Your task to perform on an android device: turn on location history Image 0: 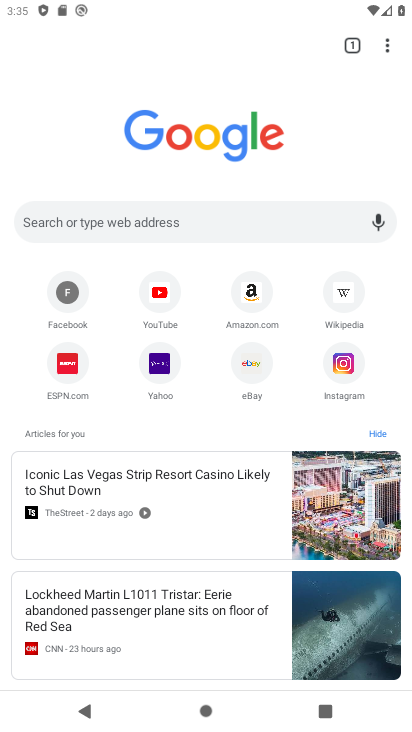
Step 0: press home button
Your task to perform on an android device: turn on location history Image 1: 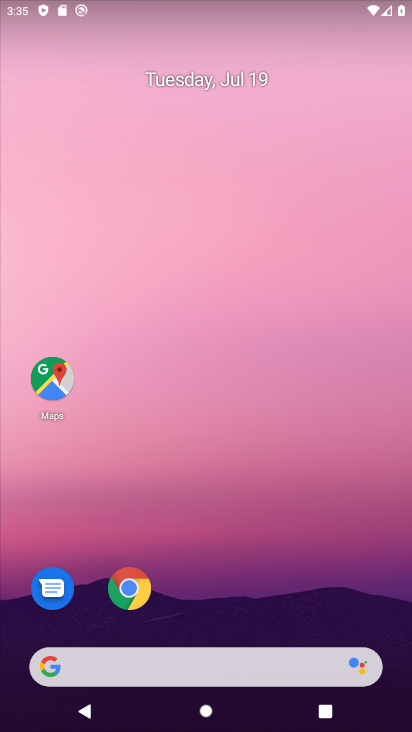
Step 1: click (62, 385)
Your task to perform on an android device: turn on location history Image 2: 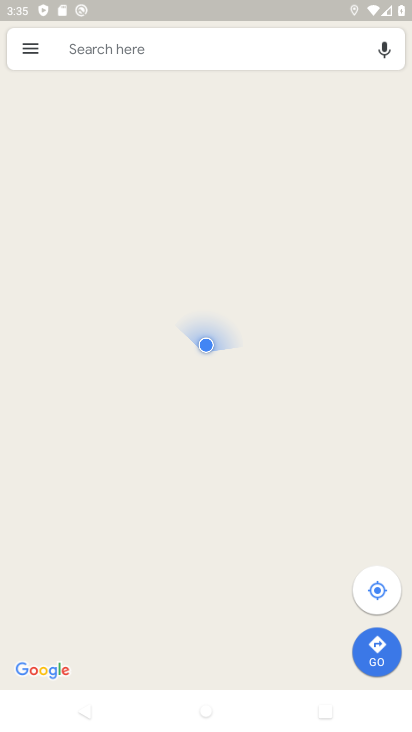
Step 2: click (32, 51)
Your task to perform on an android device: turn on location history Image 3: 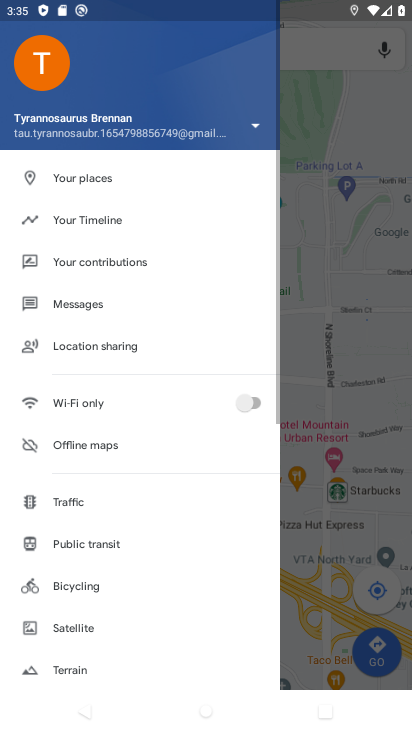
Step 3: click (108, 221)
Your task to perform on an android device: turn on location history Image 4: 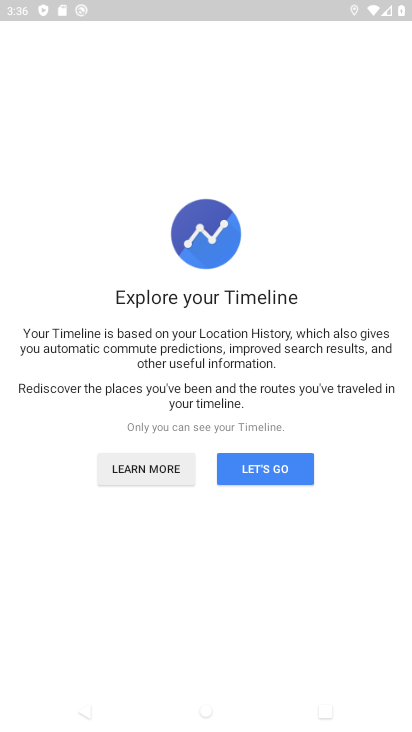
Step 4: click (254, 467)
Your task to perform on an android device: turn on location history Image 5: 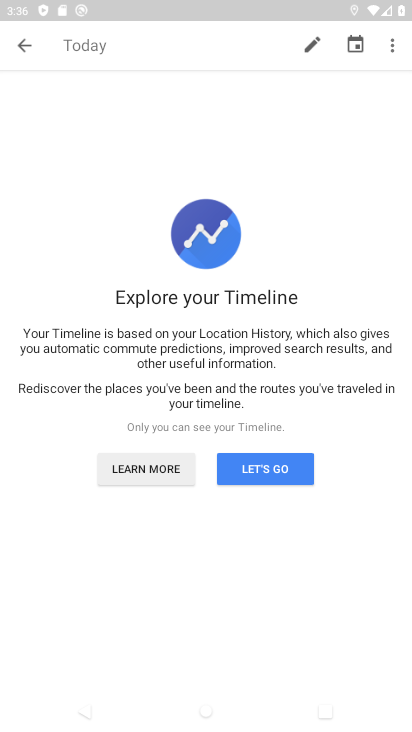
Step 5: click (254, 467)
Your task to perform on an android device: turn on location history Image 6: 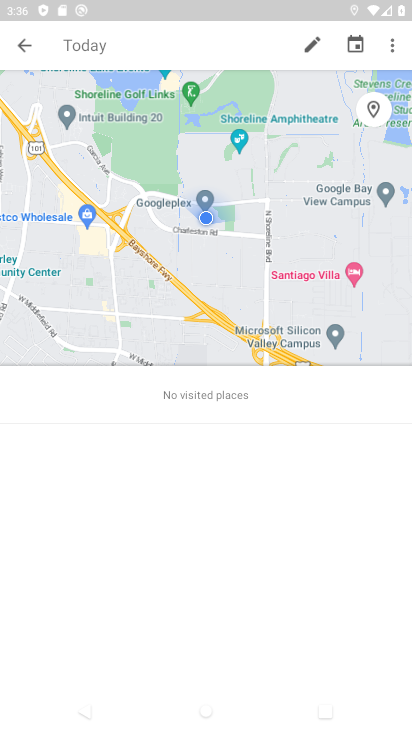
Step 6: click (391, 46)
Your task to perform on an android device: turn on location history Image 7: 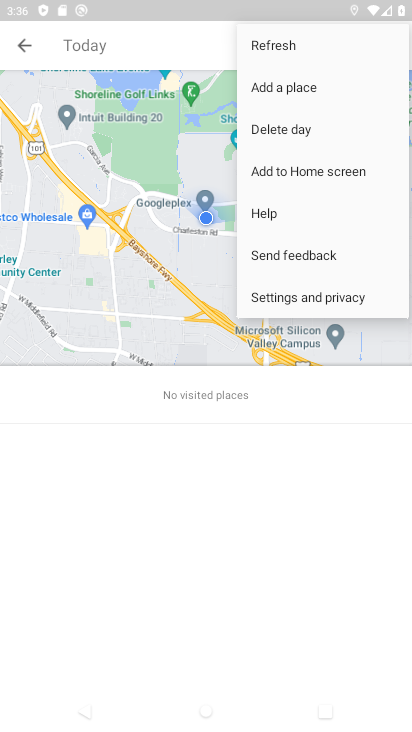
Step 7: click (336, 297)
Your task to perform on an android device: turn on location history Image 8: 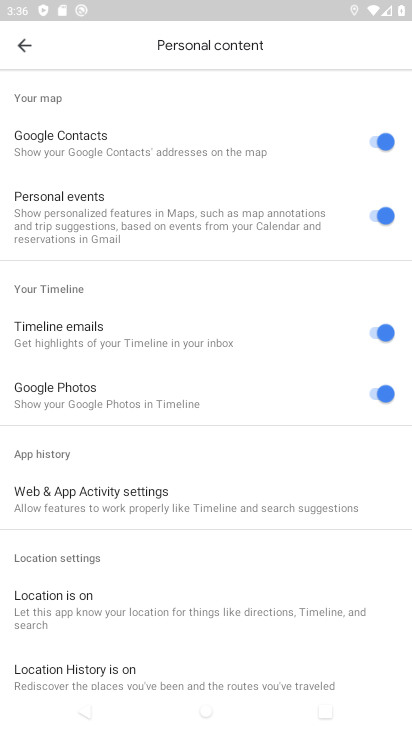
Step 8: click (205, 676)
Your task to perform on an android device: turn on location history Image 9: 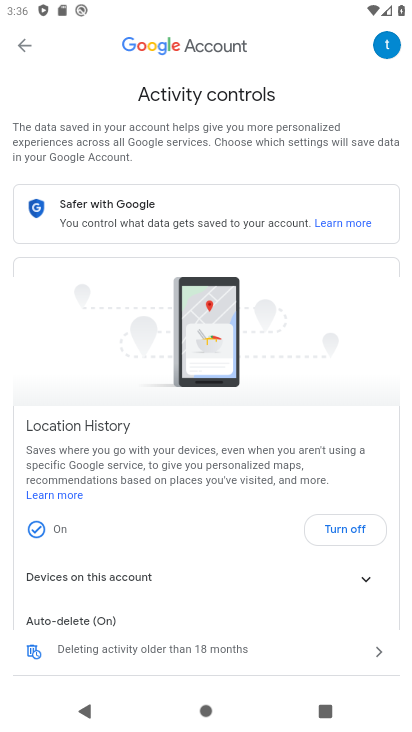
Step 9: task complete